Your task to perform on an android device: What's the weather going to be this weekend? Image 0: 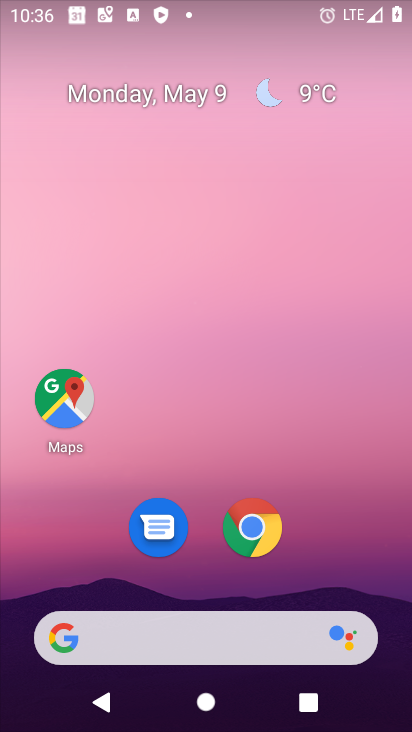
Step 0: click (300, 98)
Your task to perform on an android device: What's the weather going to be this weekend? Image 1: 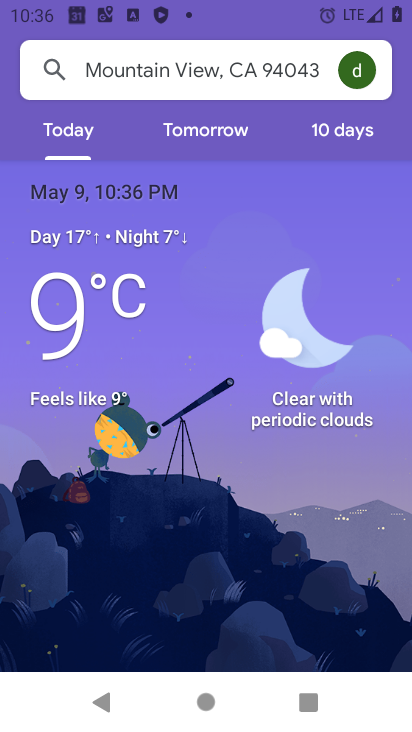
Step 1: click (328, 131)
Your task to perform on an android device: What's the weather going to be this weekend? Image 2: 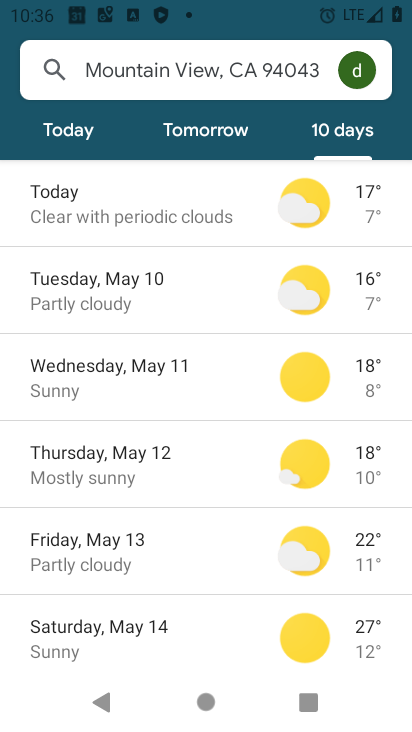
Step 2: task complete